Your task to perform on an android device: turn off location history Image 0: 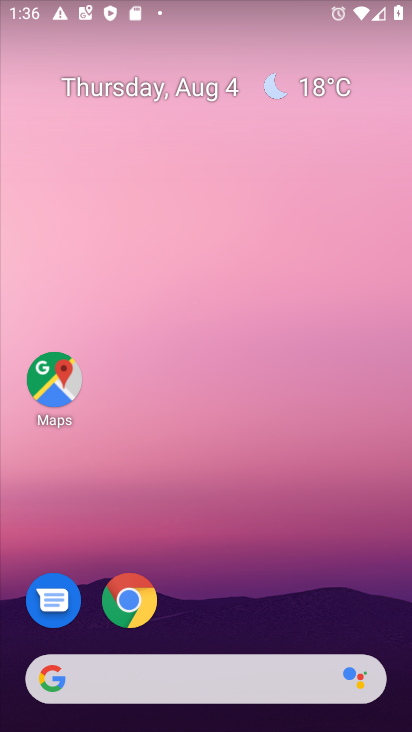
Step 0: click (55, 389)
Your task to perform on an android device: turn off location history Image 1: 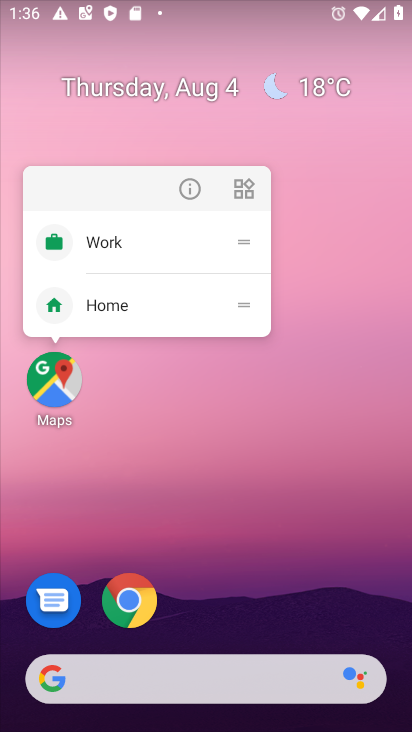
Step 1: click (53, 380)
Your task to perform on an android device: turn off location history Image 2: 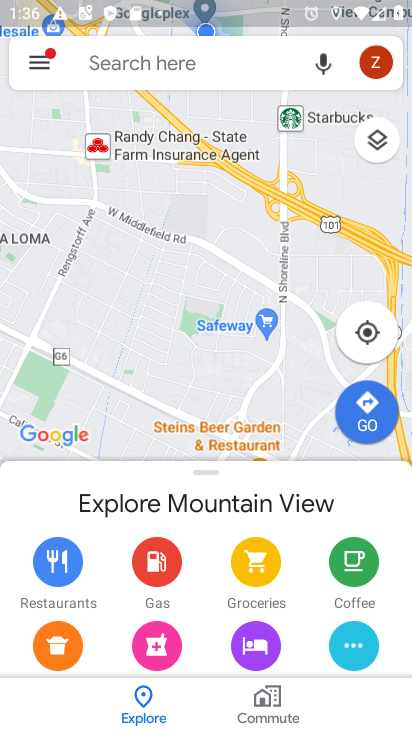
Step 2: click (38, 62)
Your task to perform on an android device: turn off location history Image 3: 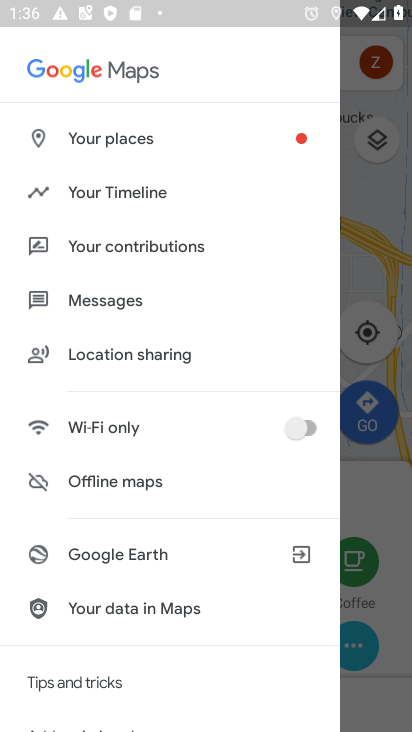
Step 3: click (135, 187)
Your task to perform on an android device: turn off location history Image 4: 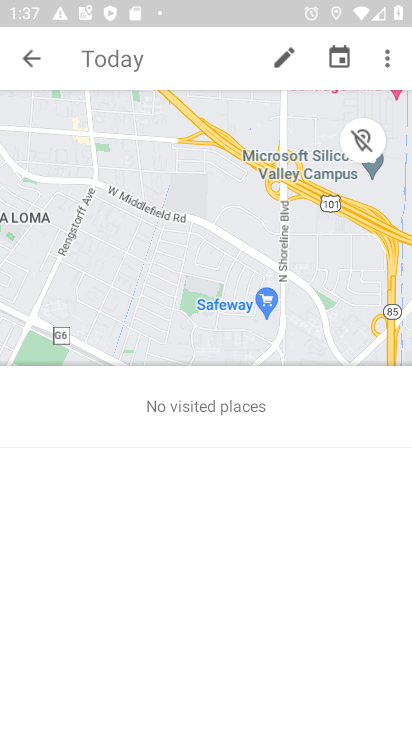
Step 4: click (389, 57)
Your task to perform on an android device: turn off location history Image 5: 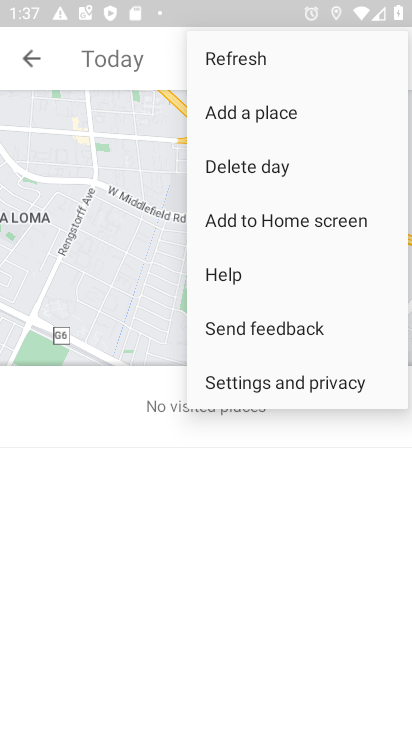
Step 5: click (296, 383)
Your task to perform on an android device: turn off location history Image 6: 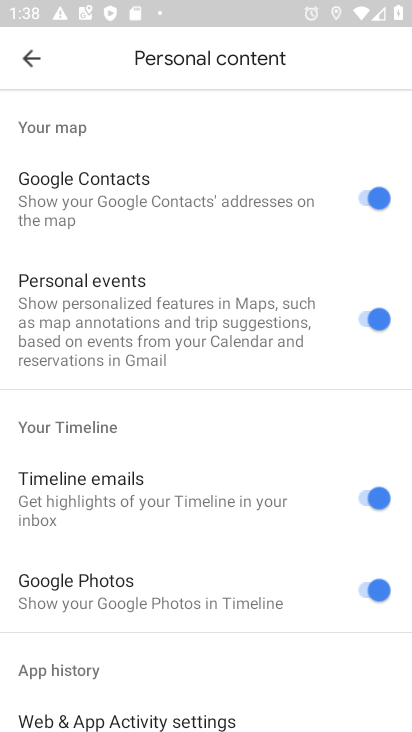
Step 6: drag from (218, 126) to (169, 568)
Your task to perform on an android device: turn off location history Image 7: 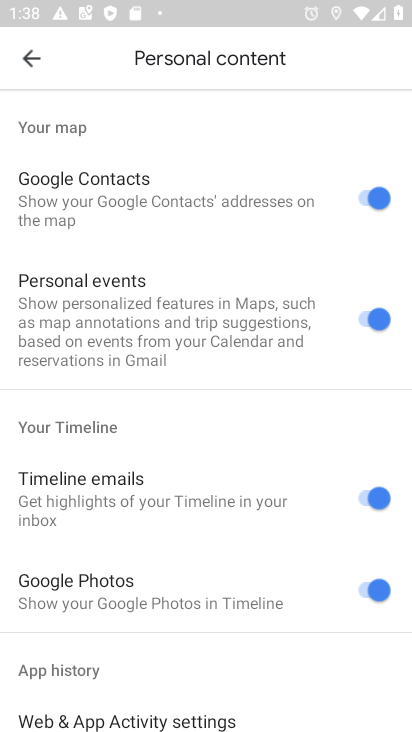
Step 7: drag from (155, 593) to (281, 123)
Your task to perform on an android device: turn off location history Image 8: 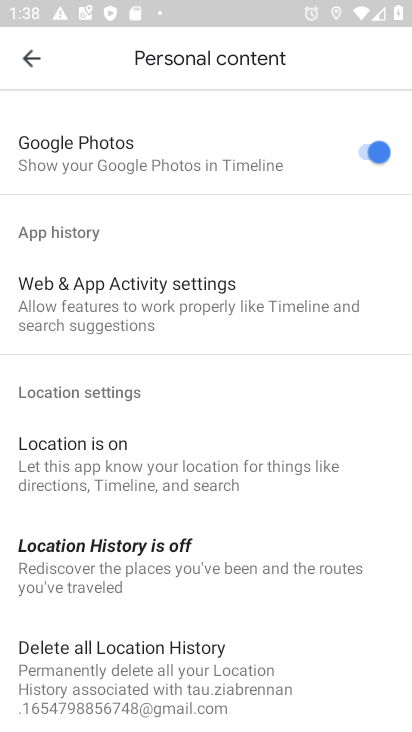
Step 8: drag from (259, 439) to (309, 220)
Your task to perform on an android device: turn off location history Image 9: 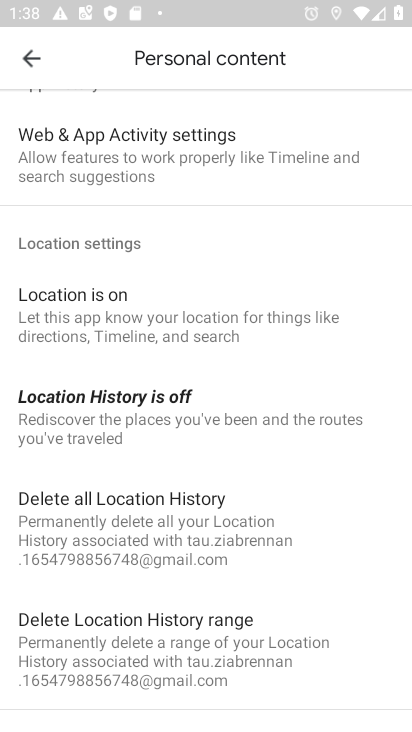
Step 9: click (148, 405)
Your task to perform on an android device: turn off location history Image 10: 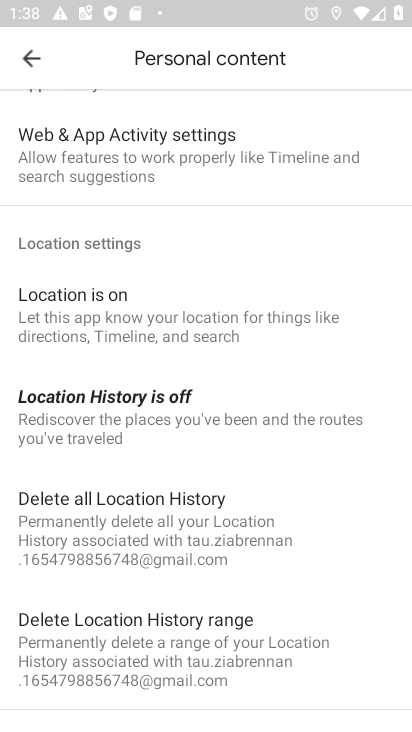
Step 10: click (142, 416)
Your task to perform on an android device: turn off location history Image 11: 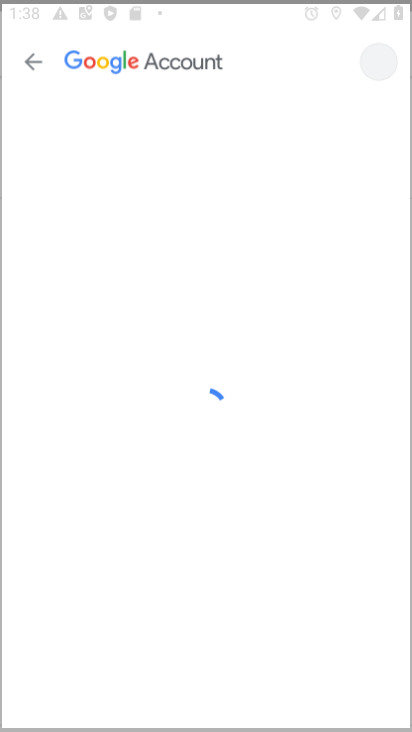
Step 11: click (178, 409)
Your task to perform on an android device: turn off location history Image 12: 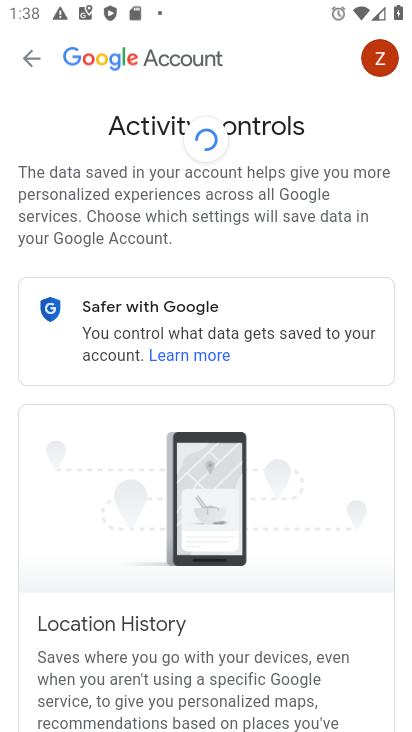
Step 12: task complete